Your task to perform on an android device: open chrome privacy settings Image 0: 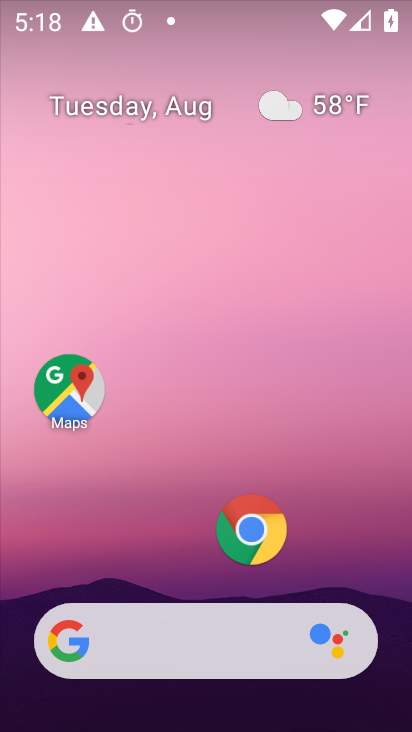
Step 0: click (252, 517)
Your task to perform on an android device: open chrome privacy settings Image 1: 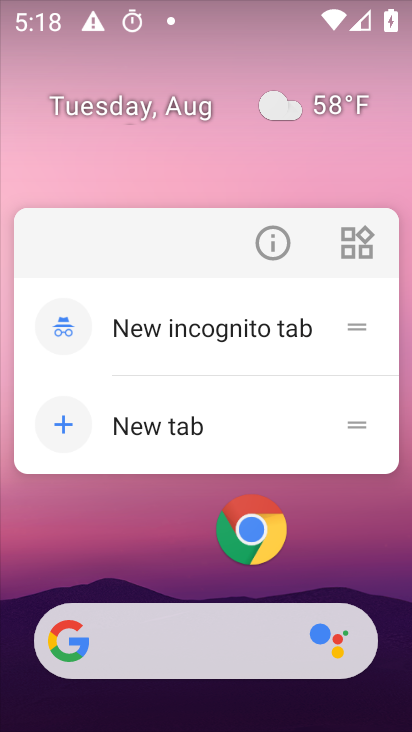
Step 1: click (246, 524)
Your task to perform on an android device: open chrome privacy settings Image 2: 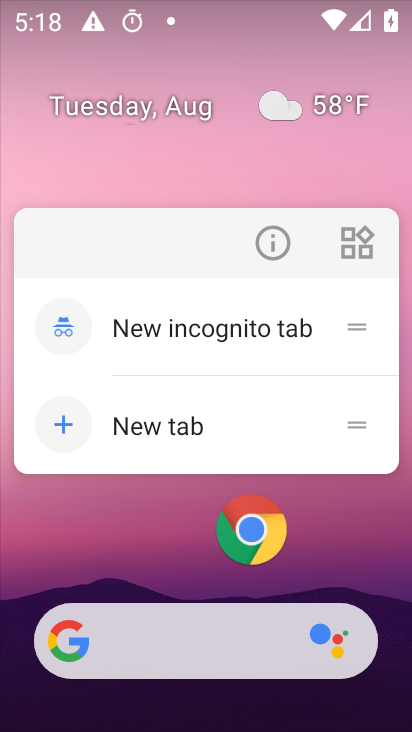
Step 2: click (251, 528)
Your task to perform on an android device: open chrome privacy settings Image 3: 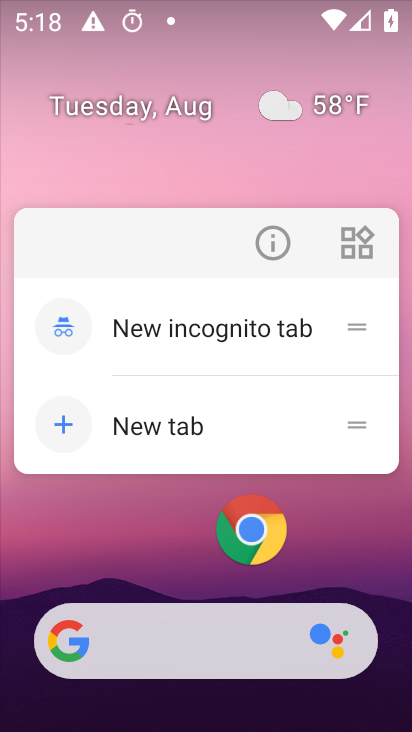
Step 3: click (251, 528)
Your task to perform on an android device: open chrome privacy settings Image 4: 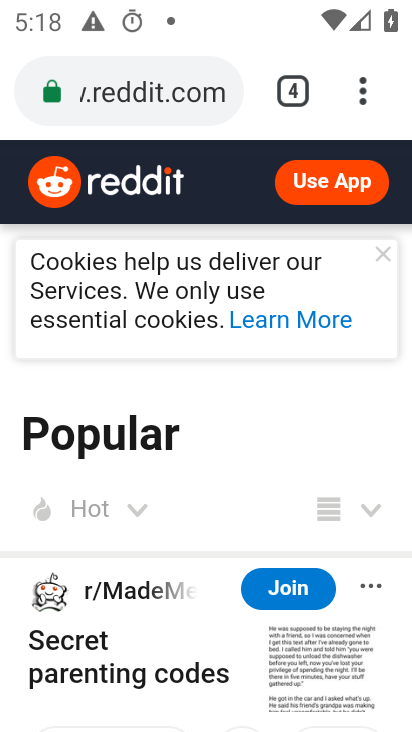
Step 4: click (355, 90)
Your task to perform on an android device: open chrome privacy settings Image 5: 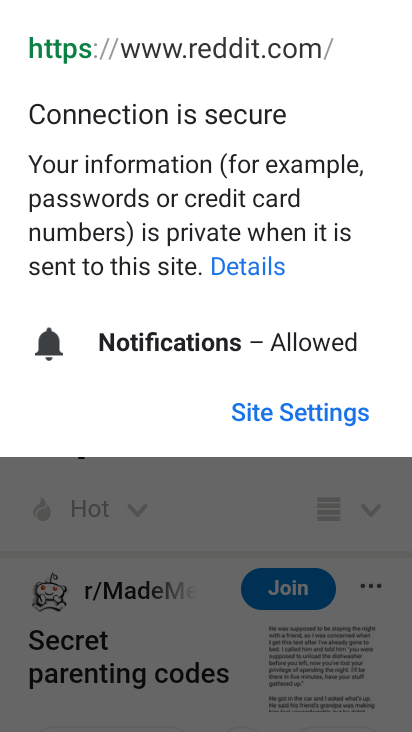
Step 5: click (250, 469)
Your task to perform on an android device: open chrome privacy settings Image 6: 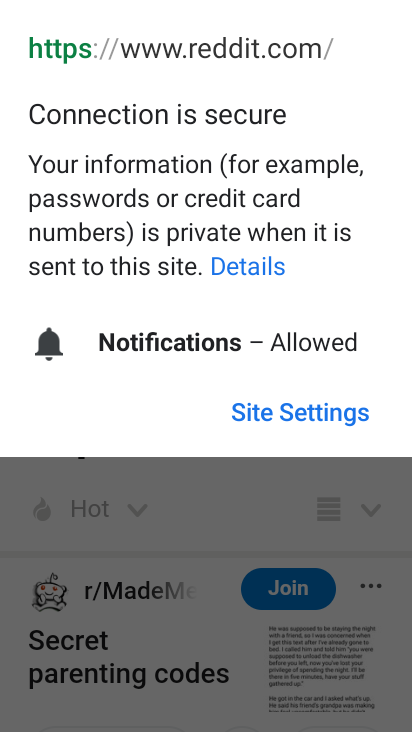
Step 6: click (250, 469)
Your task to perform on an android device: open chrome privacy settings Image 7: 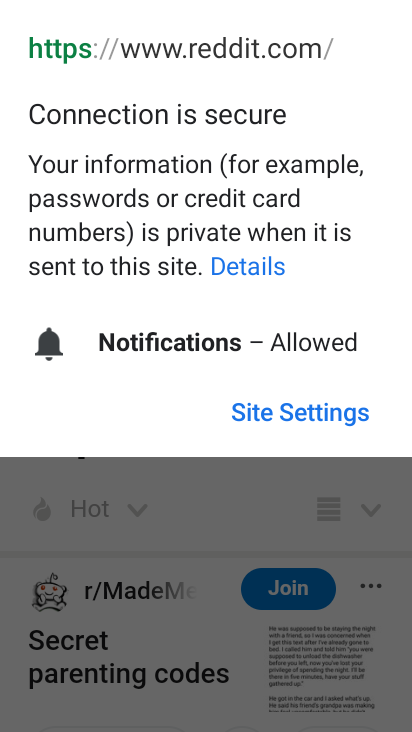
Step 7: press back button
Your task to perform on an android device: open chrome privacy settings Image 8: 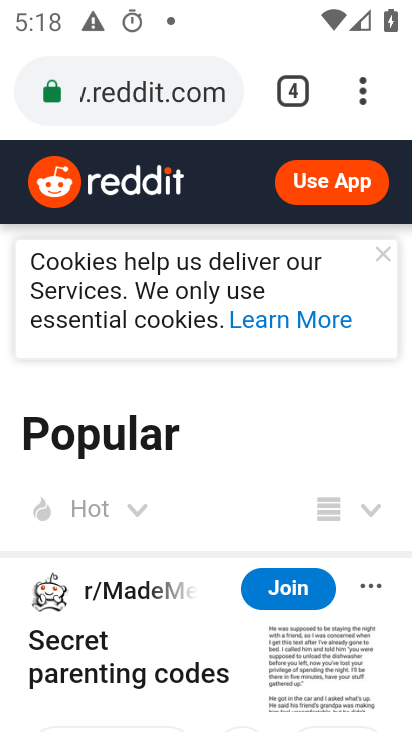
Step 8: click (363, 87)
Your task to perform on an android device: open chrome privacy settings Image 9: 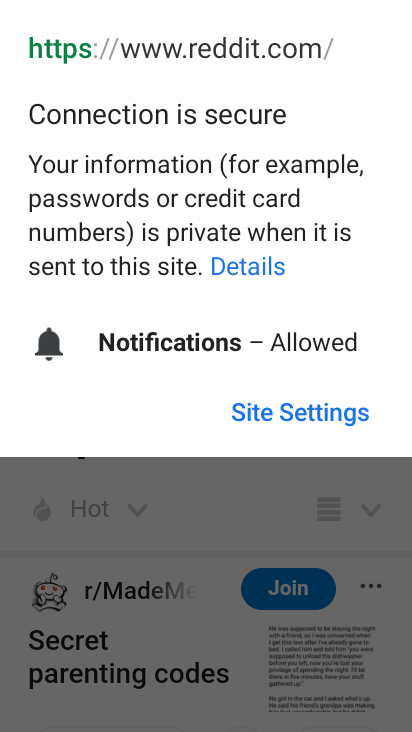
Step 9: click (337, 581)
Your task to perform on an android device: open chrome privacy settings Image 10: 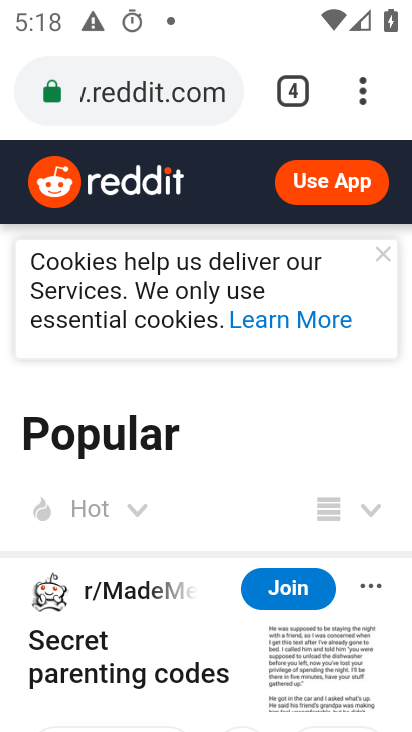
Step 10: drag from (359, 97) to (140, 583)
Your task to perform on an android device: open chrome privacy settings Image 11: 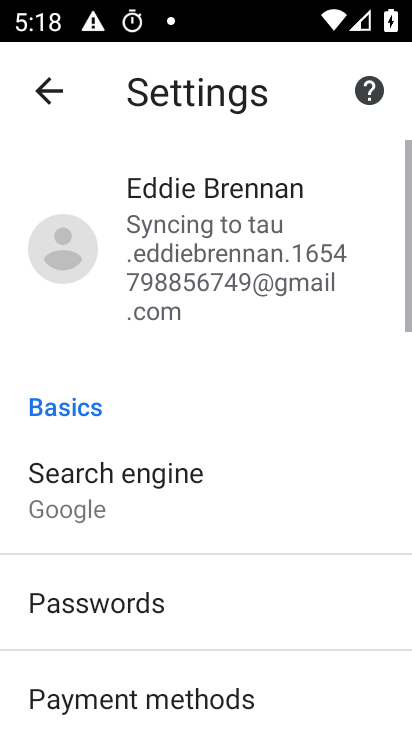
Step 11: drag from (167, 562) to (215, 202)
Your task to perform on an android device: open chrome privacy settings Image 12: 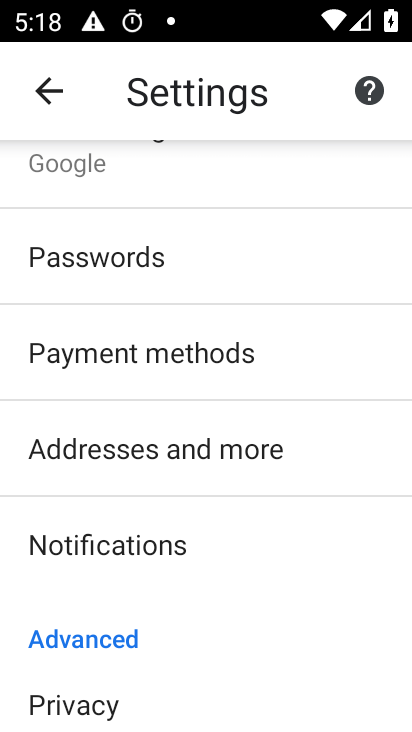
Step 12: click (133, 690)
Your task to perform on an android device: open chrome privacy settings Image 13: 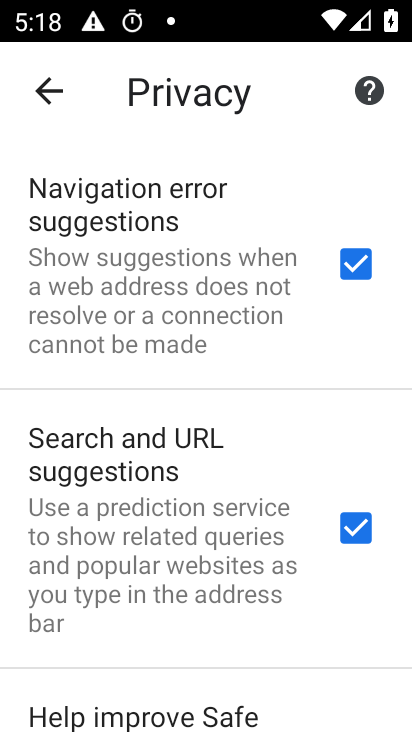
Step 13: task complete